Your task to perform on an android device: turn pop-ups on in chrome Image 0: 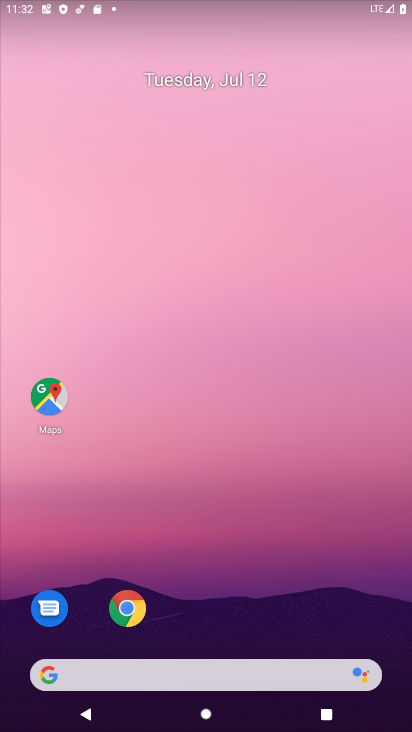
Step 0: click (115, 616)
Your task to perform on an android device: turn pop-ups on in chrome Image 1: 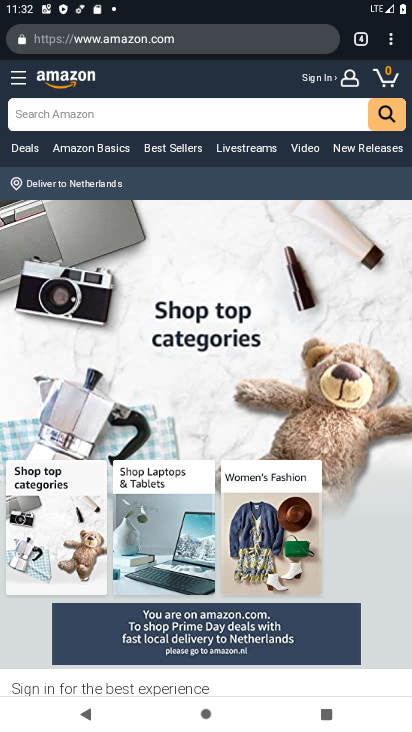
Step 1: click (390, 48)
Your task to perform on an android device: turn pop-ups on in chrome Image 2: 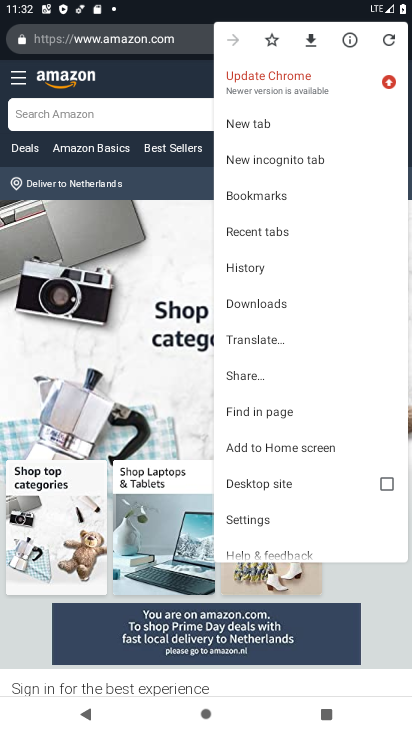
Step 2: click (274, 519)
Your task to perform on an android device: turn pop-ups on in chrome Image 3: 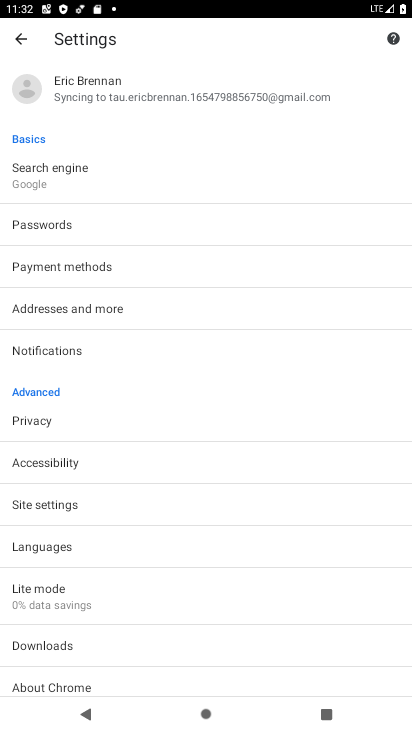
Step 3: drag from (92, 603) to (137, 190)
Your task to perform on an android device: turn pop-ups on in chrome Image 4: 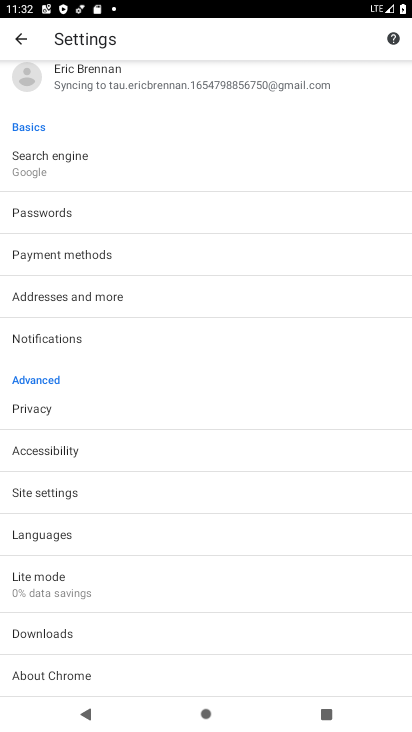
Step 4: click (151, 499)
Your task to perform on an android device: turn pop-ups on in chrome Image 5: 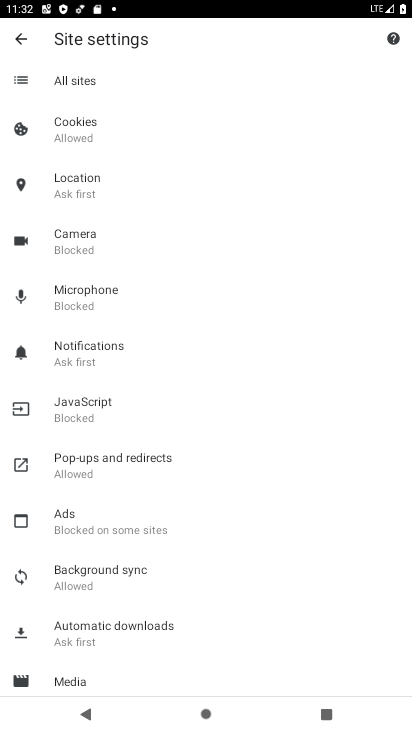
Step 5: click (104, 474)
Your task to perform on an android device: turn pop-ups on in chrome Image 6: 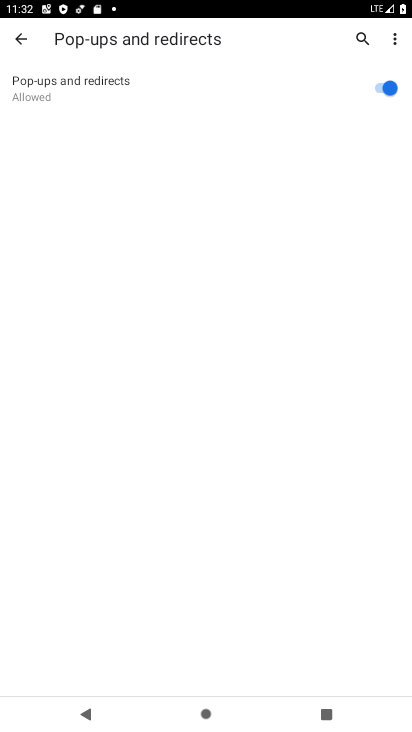
Step 6: task complete